Your task to perform on an android device: toggle priority inbox in the gmail app Image 0: 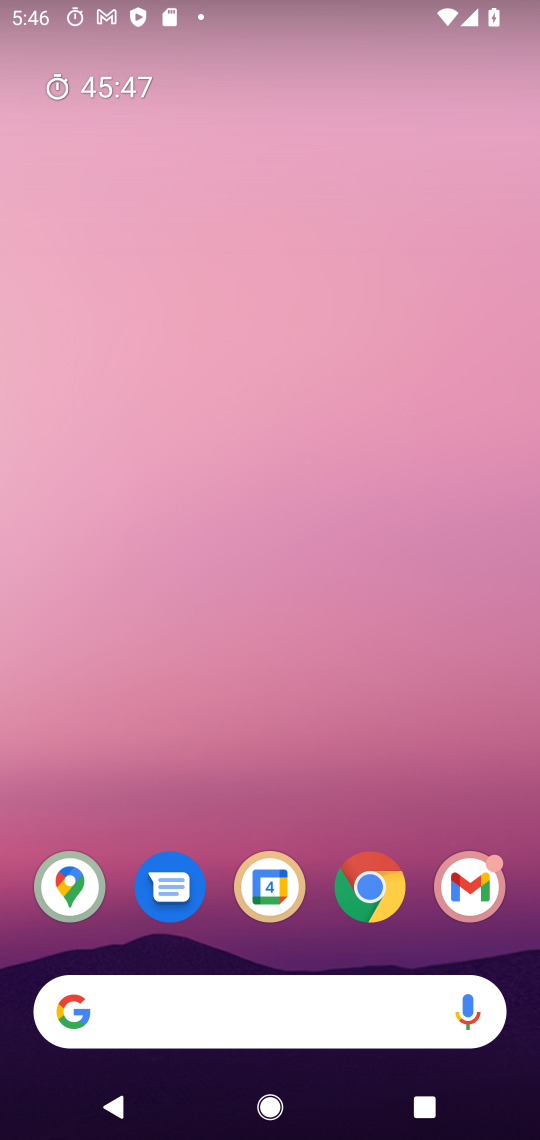
Step 0: click (468, 882)
Your task to perform on an android device: toggle priority inbox in the gmail app Image 1: 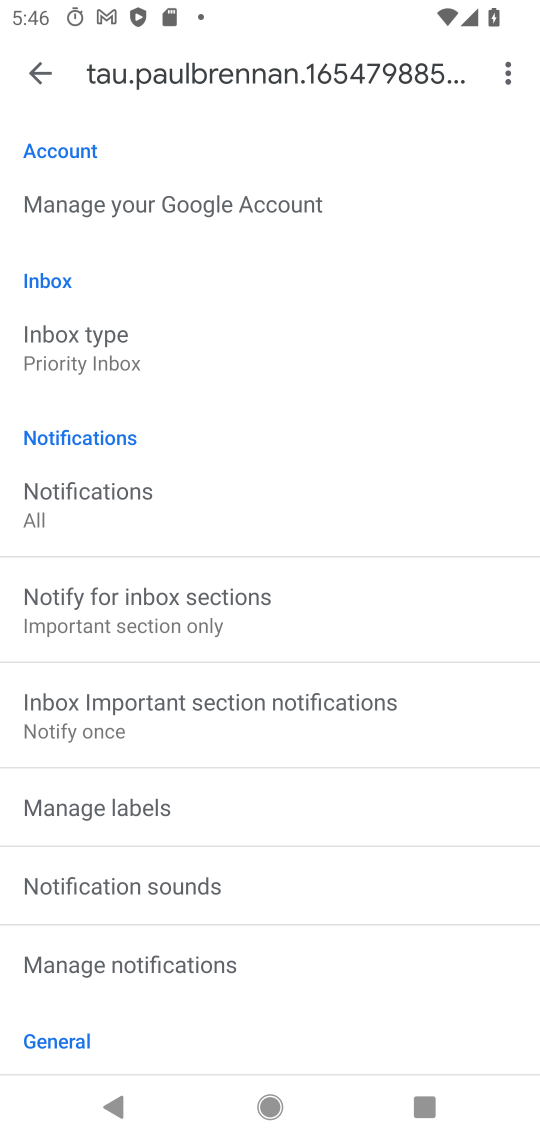
Step 1: click (70, 351)
Your task to perform on an android device: toggle priority inbox in the gmail app Image 2: 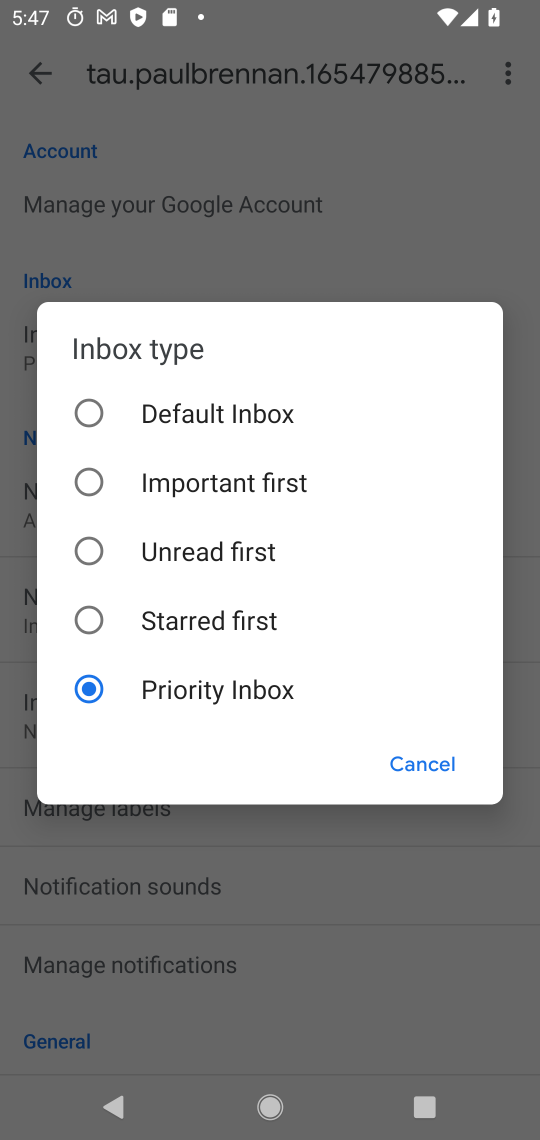
Step 2: click (84, 616)
Your task to perform on an android device: toggle priority inbox in the gmail app Image 3: 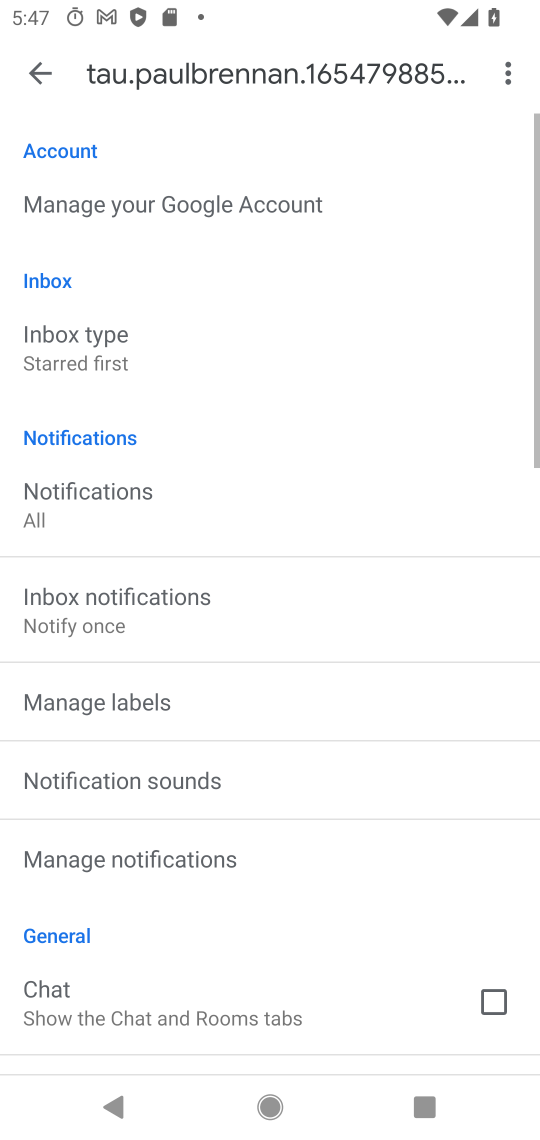
Step 3: task complete